Your task to perform on an android device: Open location settings Image 0: 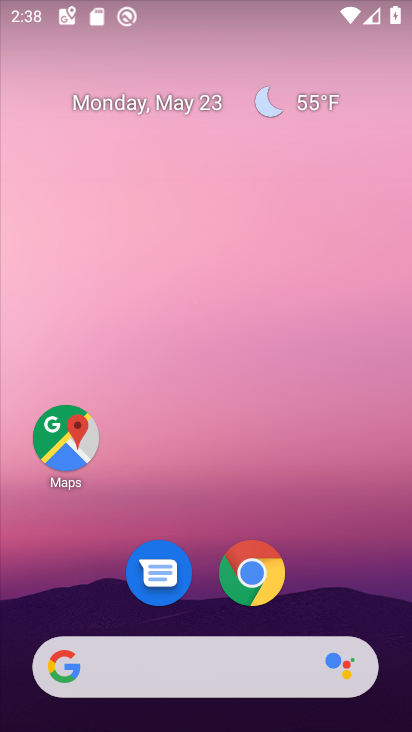
Step 0: drag from (309, 565) to (277, 40)
Your task to perform on an android device: Open location settings Image 1: 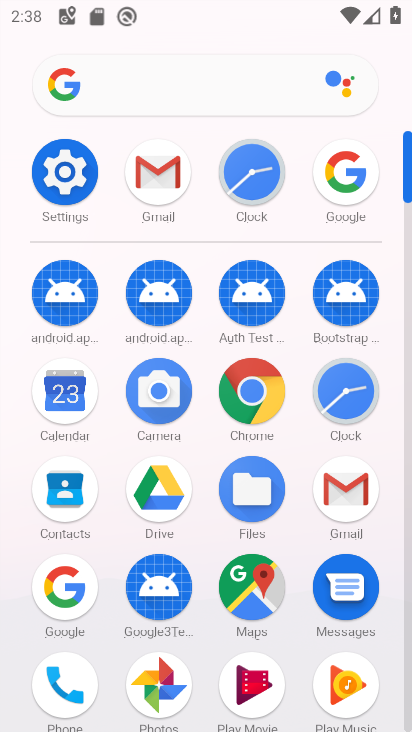
Step 1: click (49, 163)
Your task to perform on an android device: Open location settings Image 2: 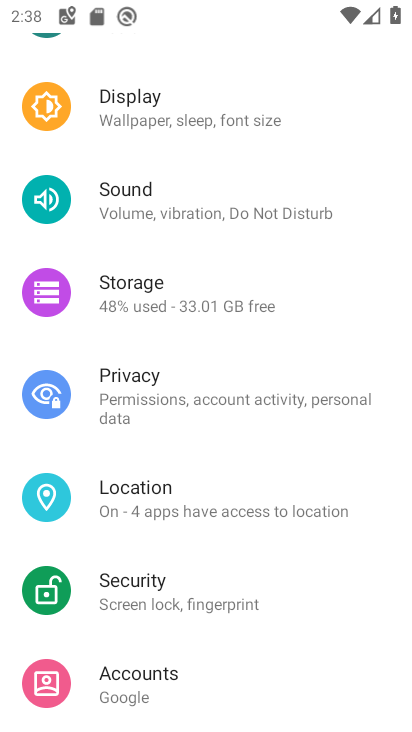
Step 2: click (196, 497)
Your task to perform on an android device: Open location settings Image 3: 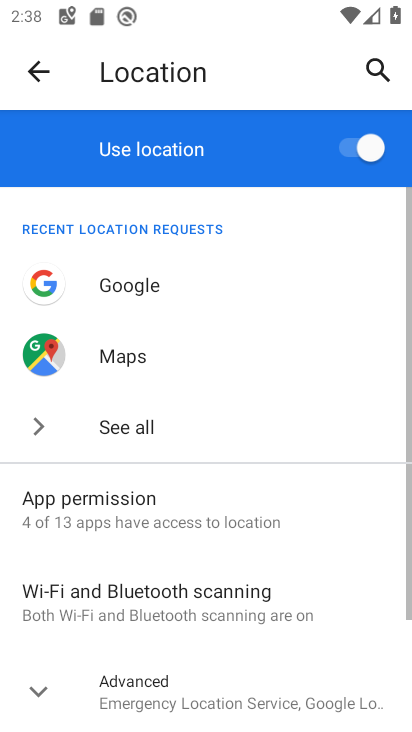
Step 3: task complete